Your task to perform on an android device: Go to internet settings Image 0: 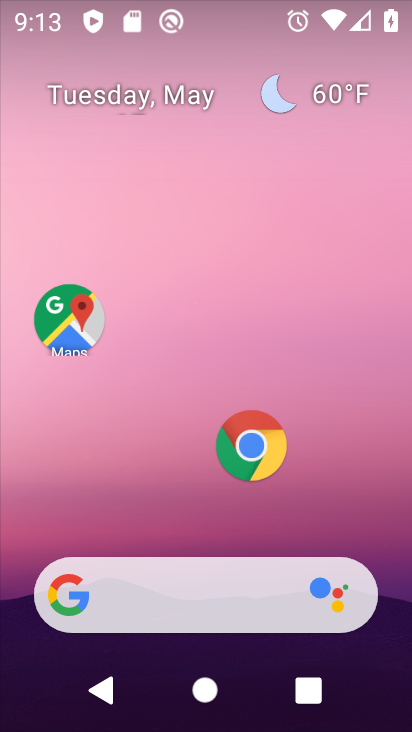
Step 0: drag from (274, 515) to (244, 140)
Your task to perform on an android device: Go to internet settings Image 1: 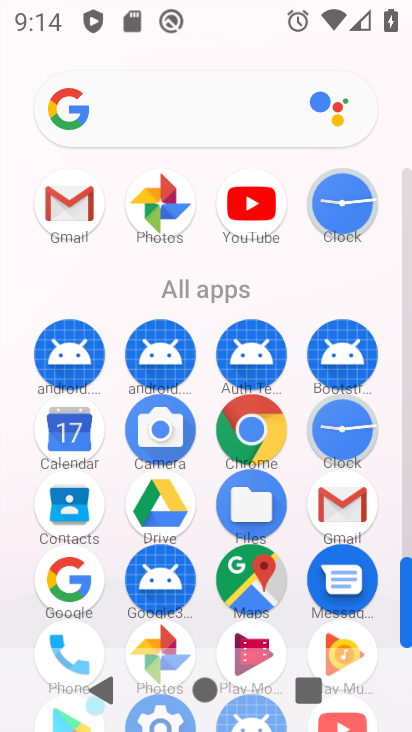
Step 1: drag from (276, 639) to (237, 361)
Your task to perform on an android device: Go to internet settings Image 2: 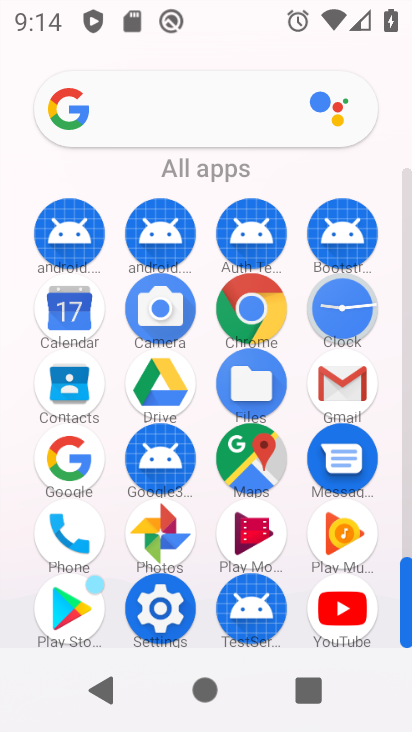
Step 2: click (158, 623)
Your task to perform on an android device: Go to internet settings Image 3: 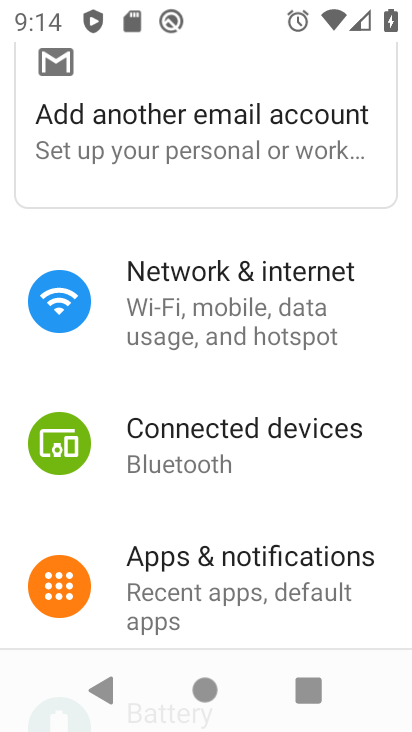
Step 3: click (230, 304)
Your task to perform on an android device: Go to internet settings Image 4: 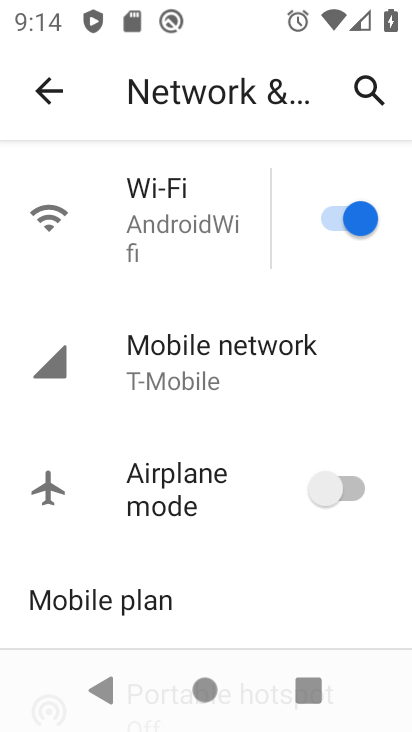
Step 4: click (266, 376)
Your task to perform on an android device: Go to internet settings Image 5: 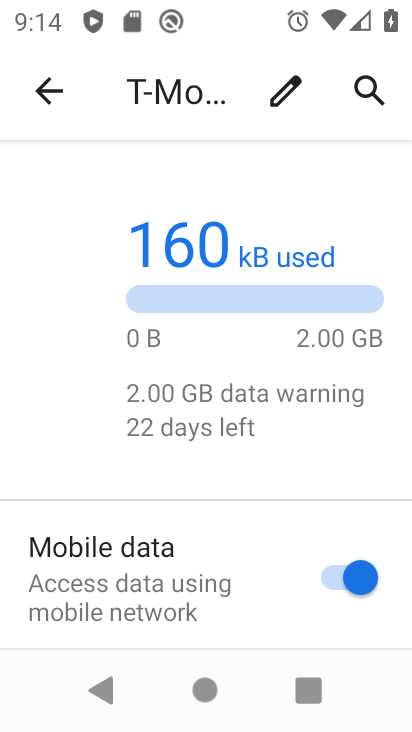
Step 5: task complete